Your task to perform on an android device: turn off location history Image 0: 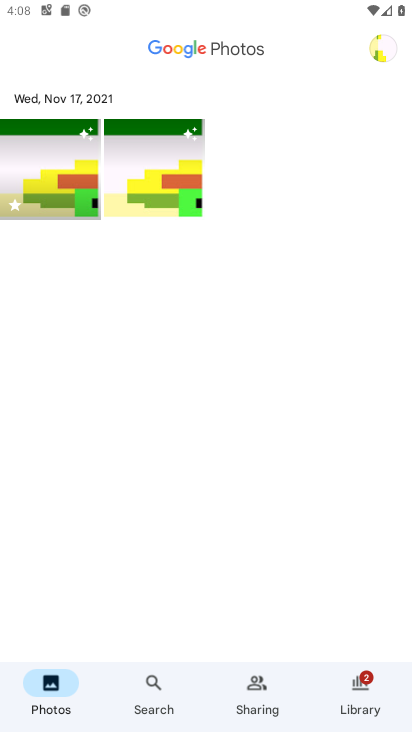
Step 0: press home button
Your task to perform on an android device: turn off location history Image 1: 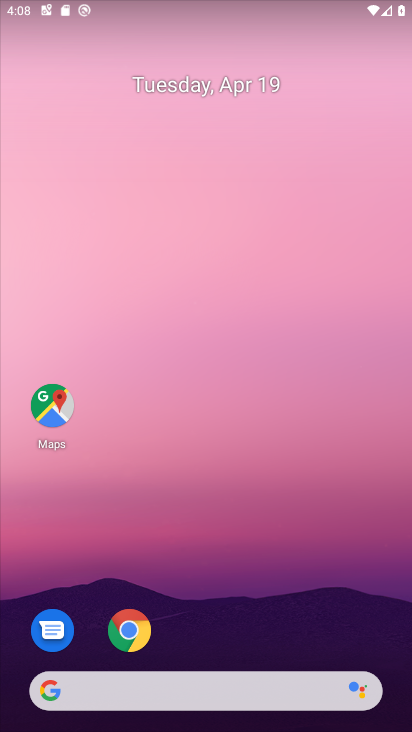
Step 1: drag from (242, 585) to (239, 214)
Your task to perform on an android device: turn off location history Image 2: 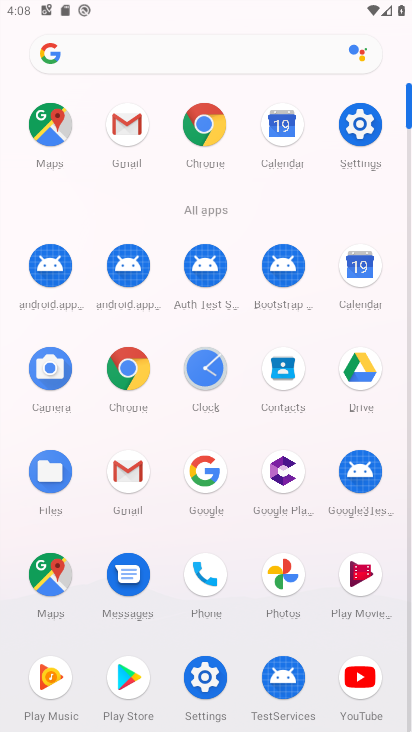
Step 2: click (362, 133)
Your task to perform on an android device: turn off location history Image 3: 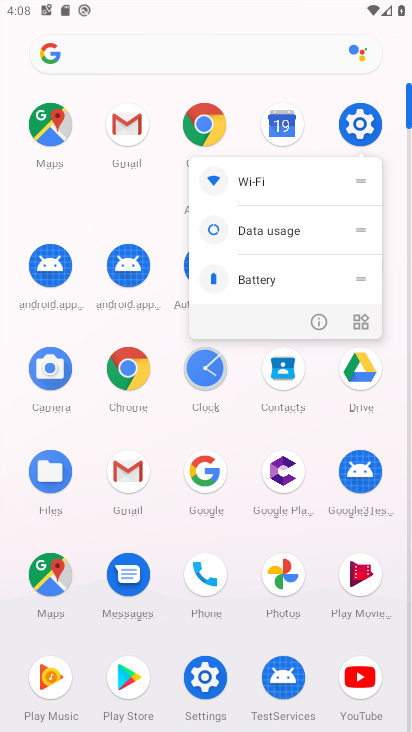
Step 3: click (364, 126)
Your task to perform on an android device: turn off location history Image 4: 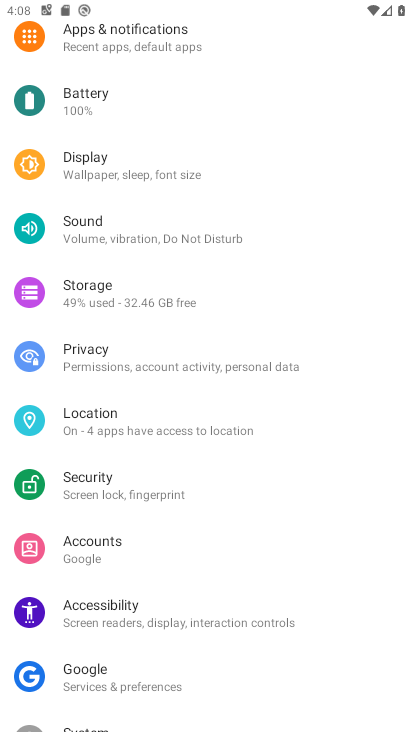
Step 4: click (178, 420)
Your task to perform on an android device: turn off location history Image 5: 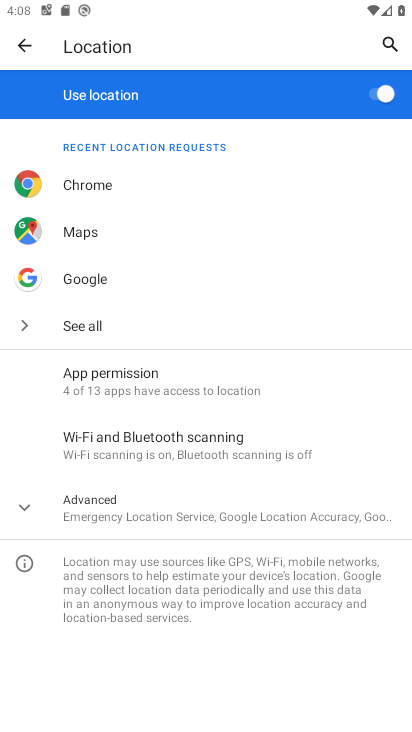
Step 5: click (27, 513)
Your task to perform on an android device: turn off location history Image 6: 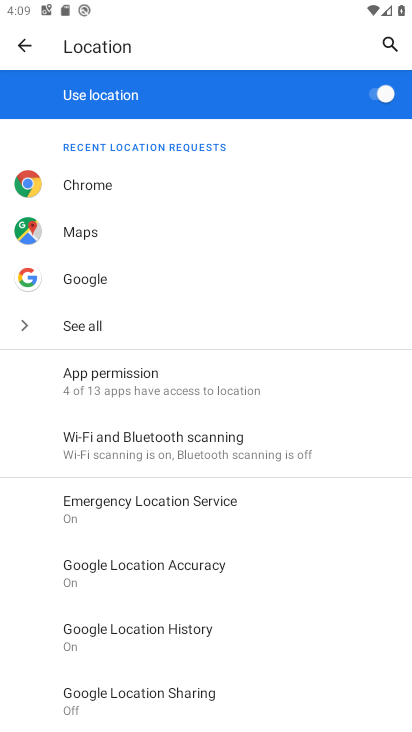
Step 6: click (192, 638)
Your task to perform on an android device: turn off location history Image 7: 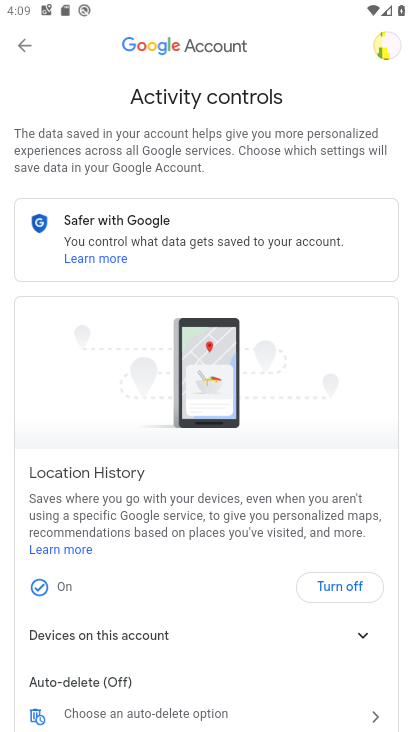
Step 7: click (340, 589)
Your task to perform on an android device: turn off location history Image 8: 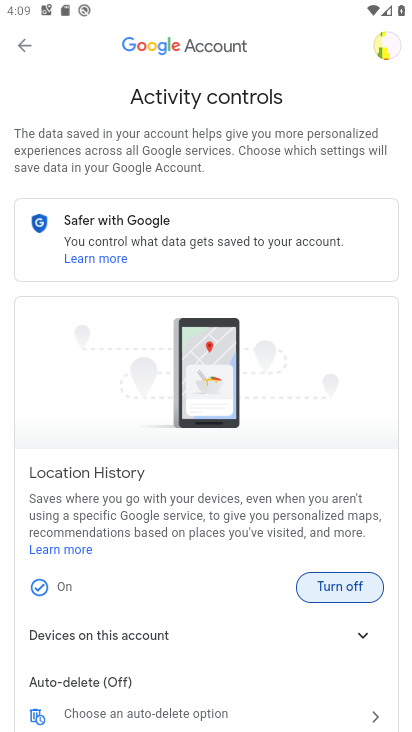
Step 8: click (336, 592)
Your task to perform on an android device: turn off location history Image 9: 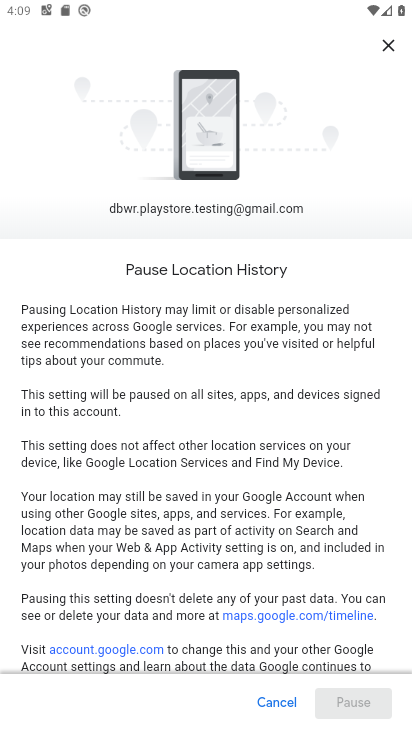
Step 9: drag from (359, 580) to (351, 225)
Your task to perform on an android device: turn off location history Image 10: 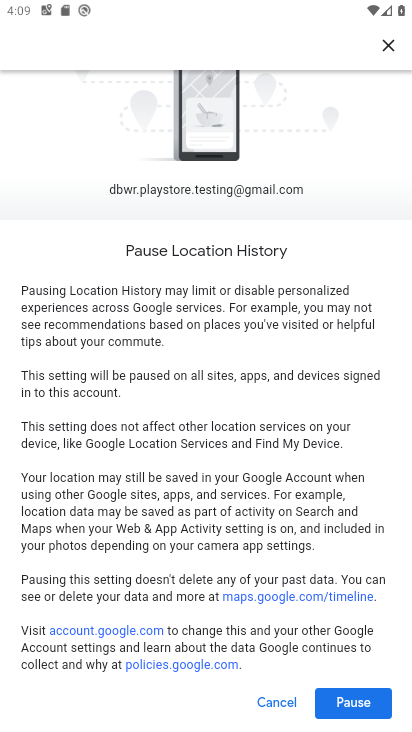
Step 10: click (365, 709)
Your task to perform on an android device: turn off location history Image 11: 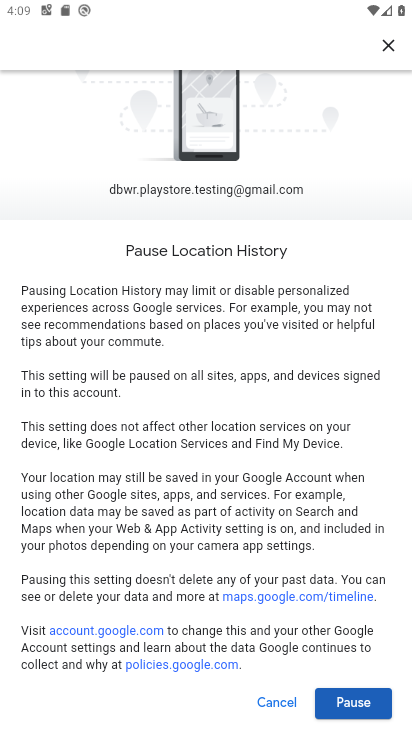
Step 11: click (347, 703)
Your task to perform on an android device: turn off location history Image 12: 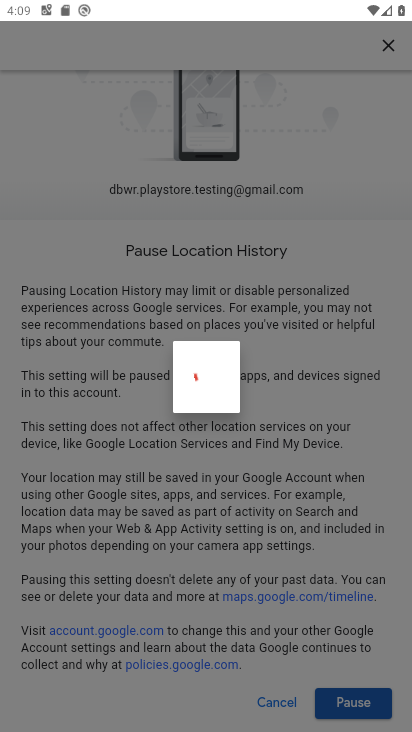
Step 12: task complete